Your task to perform on an android device: change alarm snooze length Image 0: 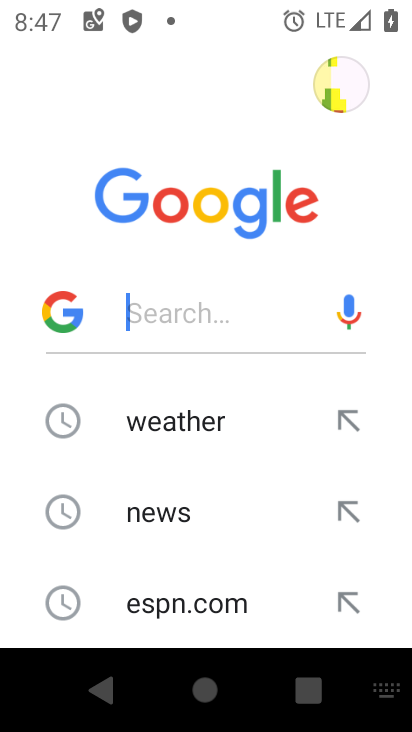
Step 0: press home button
Your task to perform on an android device: change alarm snooze length Image 1: 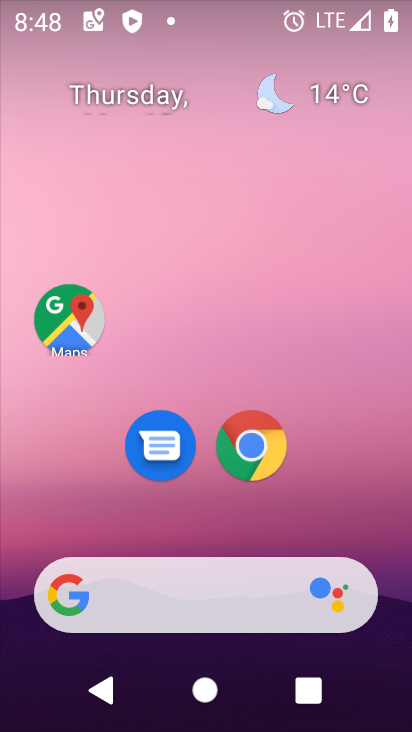
Step 1: drag from (231, 706) to (217, 112)
Your task to perform on an android device: change alarm snooze length Image 2: 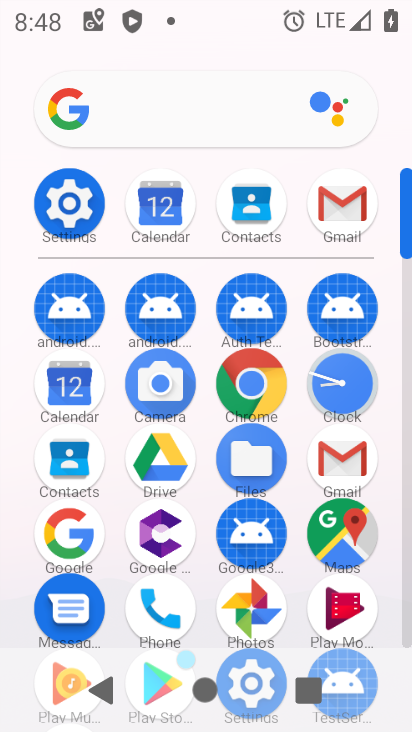
Step 2: click (341, 389)
Your task to perform on an android device: change alarm snooze length Image 3: 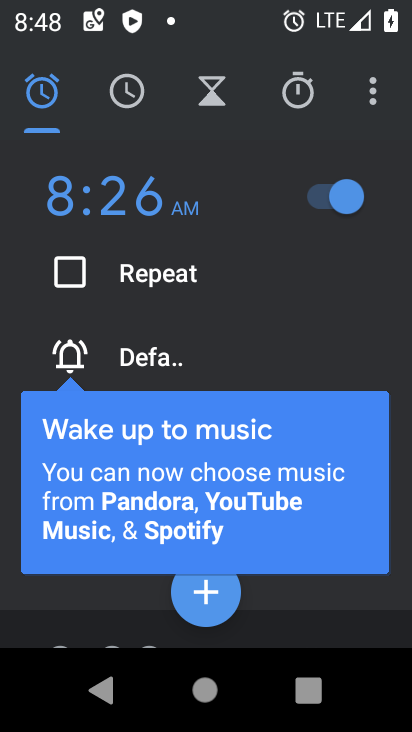
Step 3: click (376, 100)
Your task to perform on an android device: change alarm snooze length Image 4: 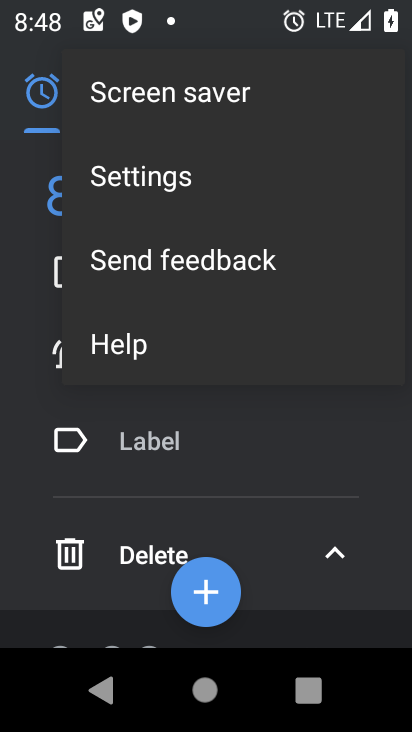
Step 4: click (153, 182)
Your task to perform on an android device: change alarm snooze length Image 5: 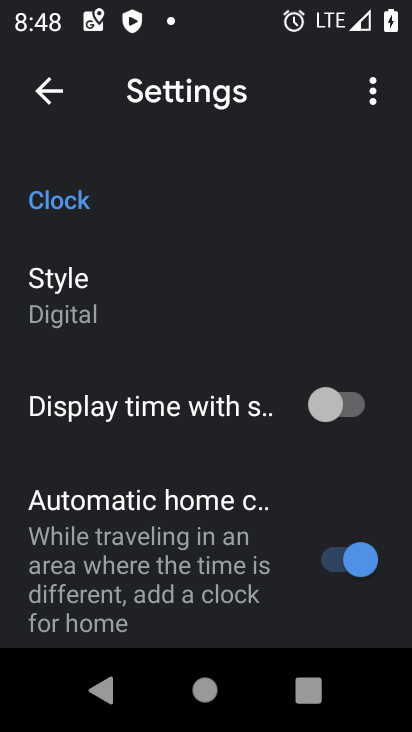
Step 5: drag from (132, 575) to (130, 250)
Your task to perform on an android device: change alarm snooze length Image 6: 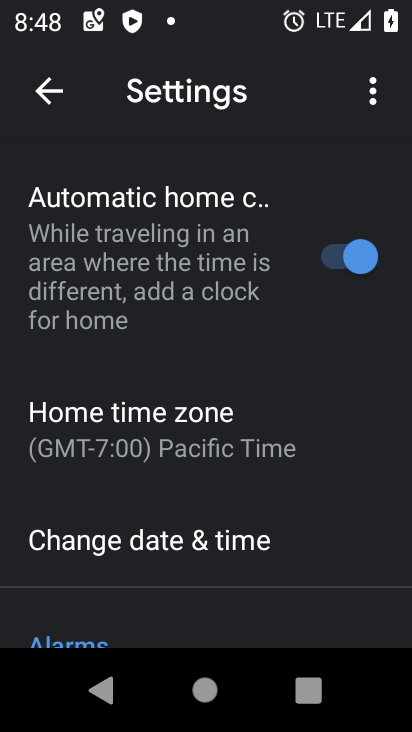
Step 6: drag from (181, 594) to (170, 231)
Your task to perform on an android device: change alarm snooze length Image 7: 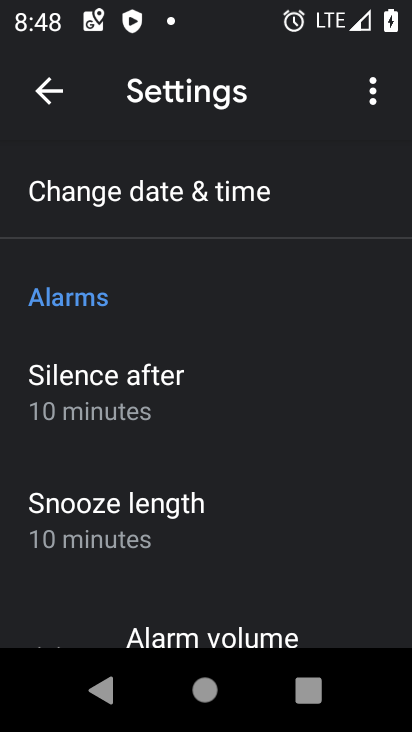
Step 7: click (146, 507)
Your task to perform on an android device: change alarm snooze length Image 8: 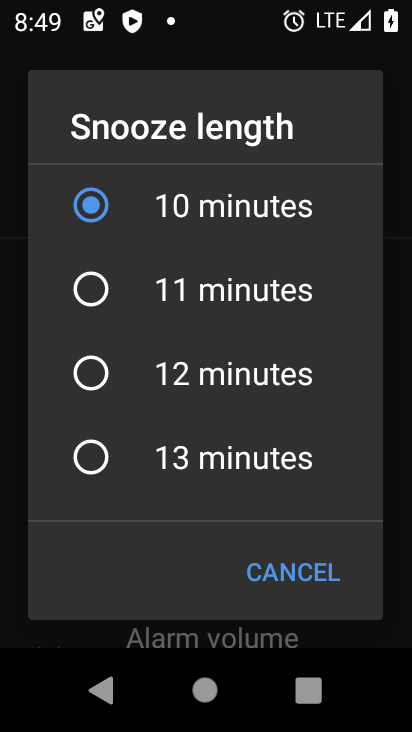
Step 8: click (97, 457)
Your task to perform on an android device: change alarm snooze length Image 9: 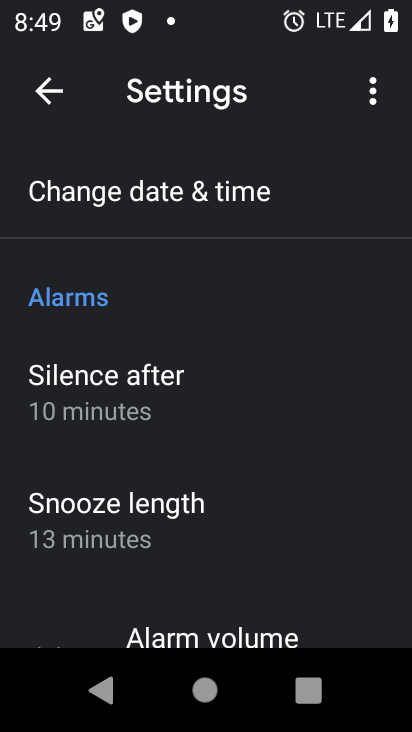
Step 9: task complete